Your task to perform on an android device: Show me the alarms in the clock app Image 0: 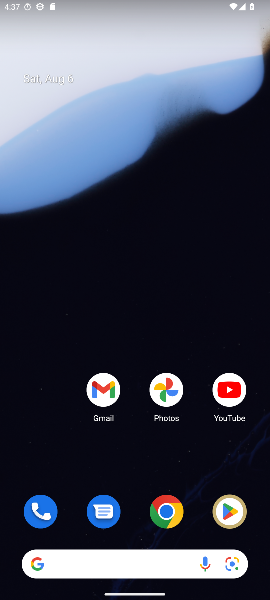
Step 0: drag from (132, 477) to (139, 113)
Your task to perform on an android device: Show me the alarms in the clock app Image 1: 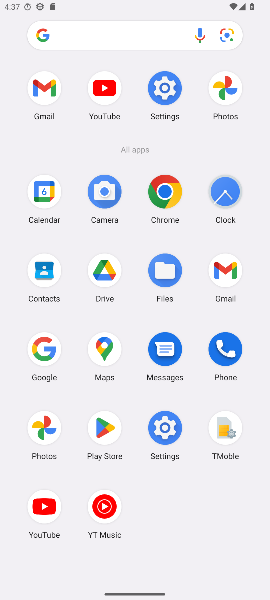
Step 1: click (219, 204)
Your task to perform on an android device: Show me the alarms in the clock app Image 2: 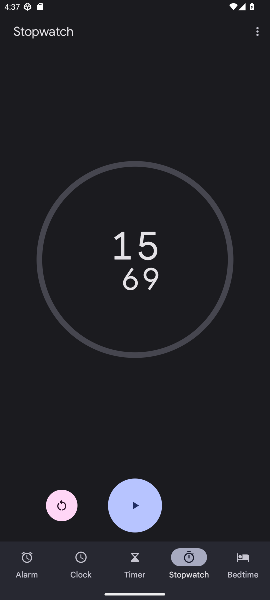
Step 2: click (60, 501)
Your task to perform on an android device: Show me the alarms in the clock app Image 3: 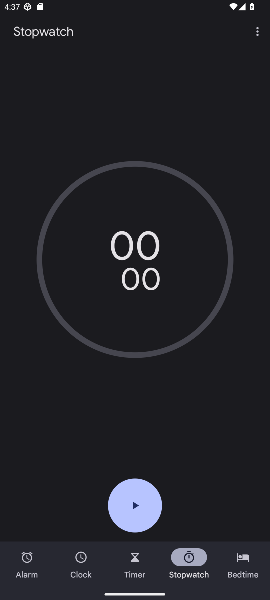
Step 3: click (22, 569)
Your task to perform on an android device: Show me the alarms in the clock app Image 4: 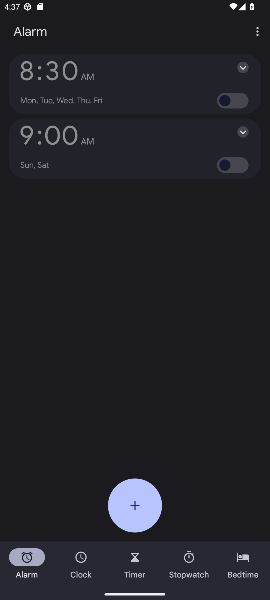
Step 4: task complete